Your task to perform on an android device: Open Yahoo.com Image 0: 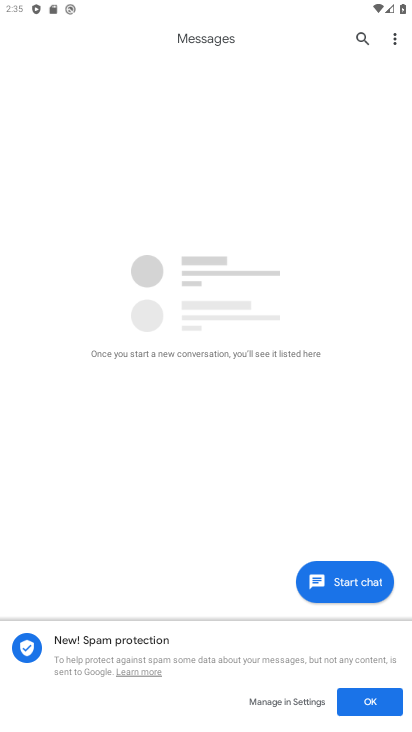
Step 0: press home button
Your task to perform on an android device: Open Yahoo.com Image 1: 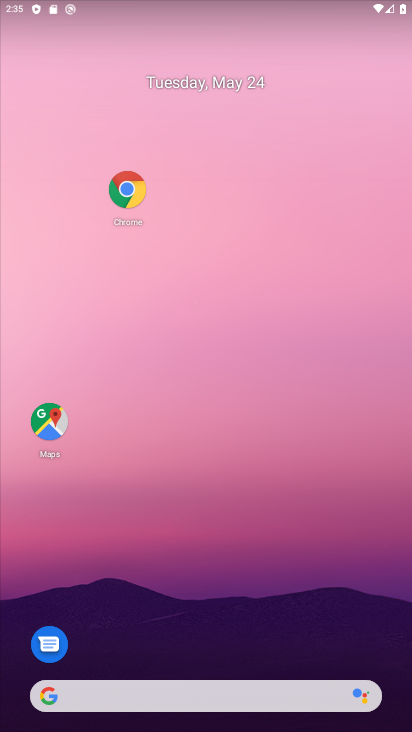
Step 1: click (127, 191)
Your task to perform on an android device: Open Yahoo.com Image 2: 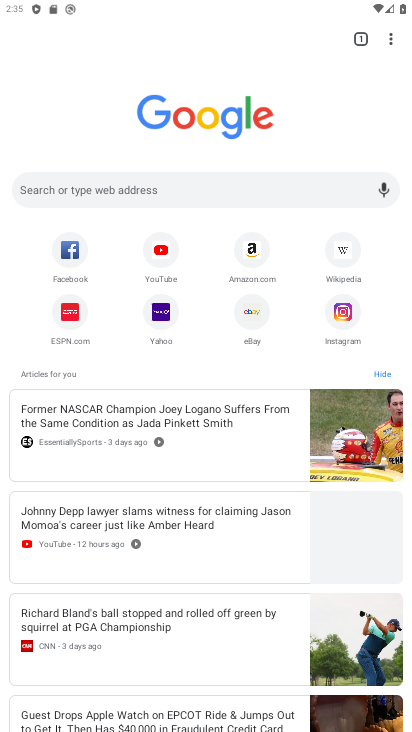
Step 2: click (154, 314)
Your task to perform on an android device: Open Yahoo.com Image 3: 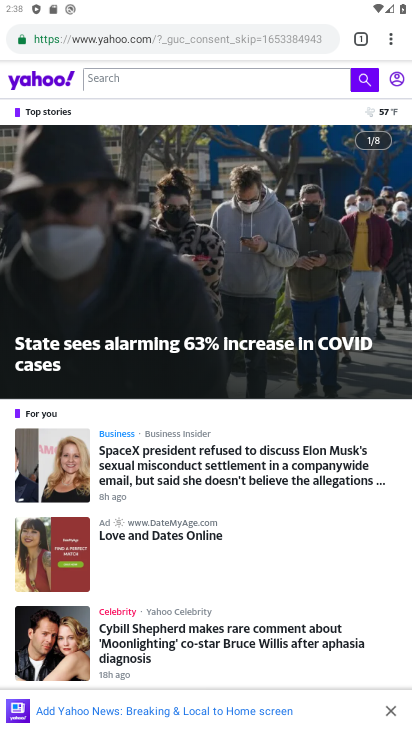
Step 3: task complete